Your task to perform on an android device: Open the phone app and click the voicemail tab. Image 0: 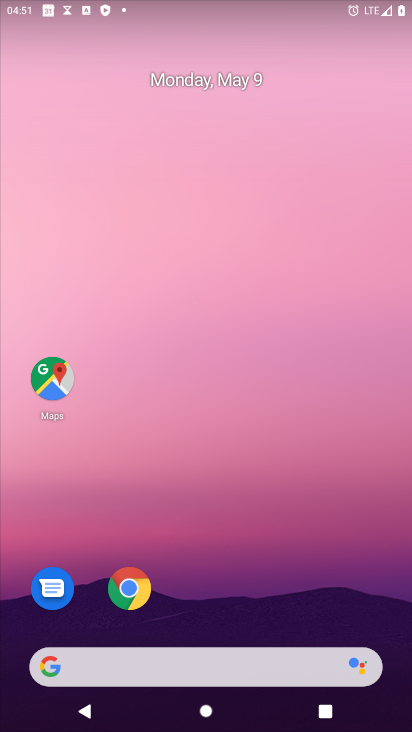
Step 0: drag from (300, 574) to (213, 61)
Your task to perform on an android device: Open the phone app and click the voicemail tab. Image 1: 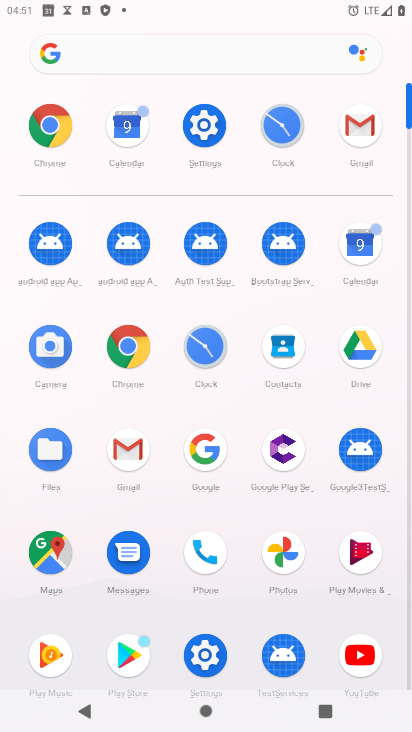
Step 1: click (201, 554)
Your task to perform on an android device: Open the phone app and click the voicemail tab. Image 2: 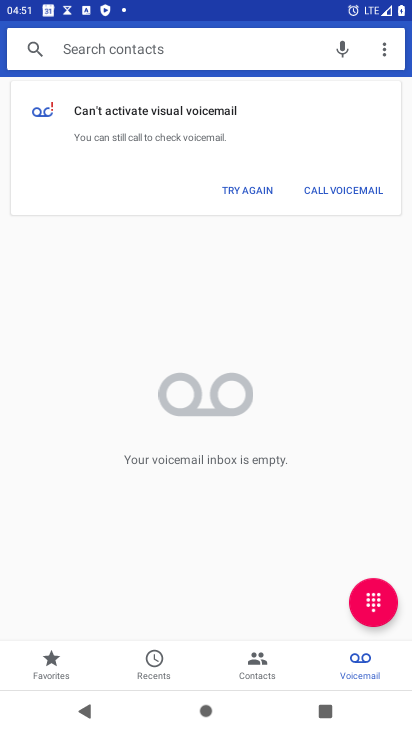
Step 2: click (363, 665)
Your task to perform on an android device: Open the phone app and click the voicemail tab. Image 3: 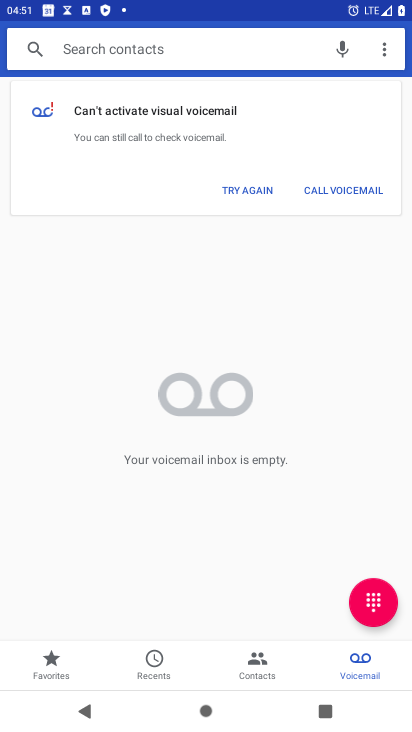
Step 3: task complete